Your task to perform on an android device: turn on translation in the chrome app Image 0: 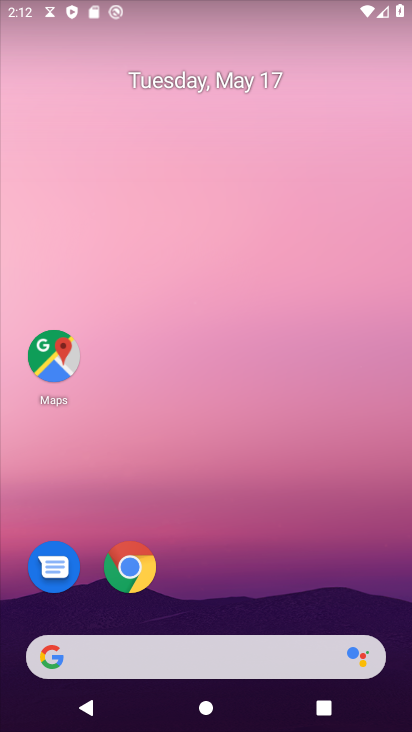
Step 0: click (142, 585)
Your task to perform on an android device: turn on translation in the chrome app Image 1: 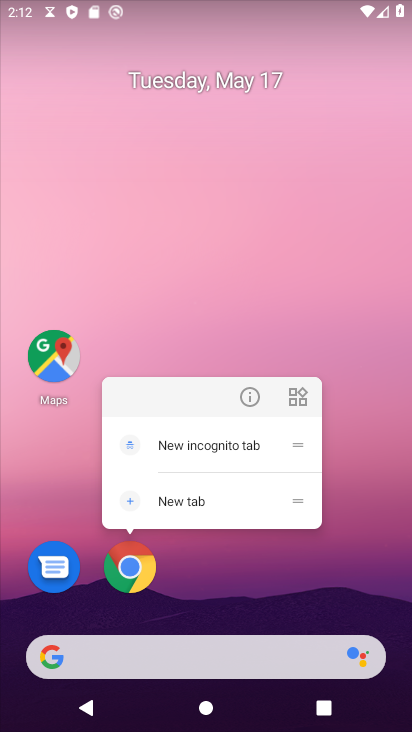
Step 1: click (138, 583)
Your task to perform on an android device: turn on translation in the chrome app Image 2: 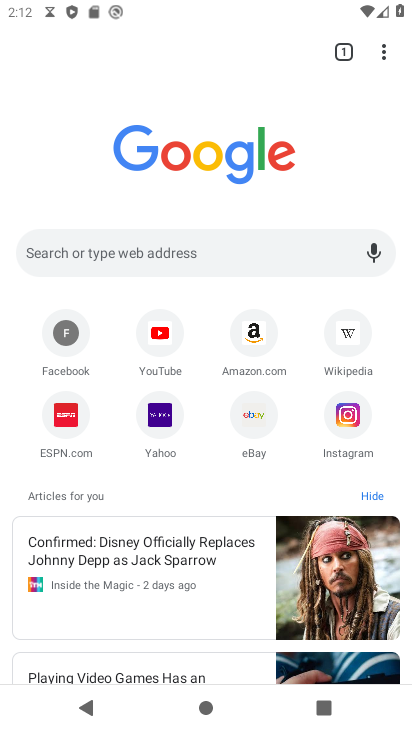
Step 2: drag from (379, 58) to (208, 446)
Your task to perform on an android device: turn on translation in the chrome app Image 3: 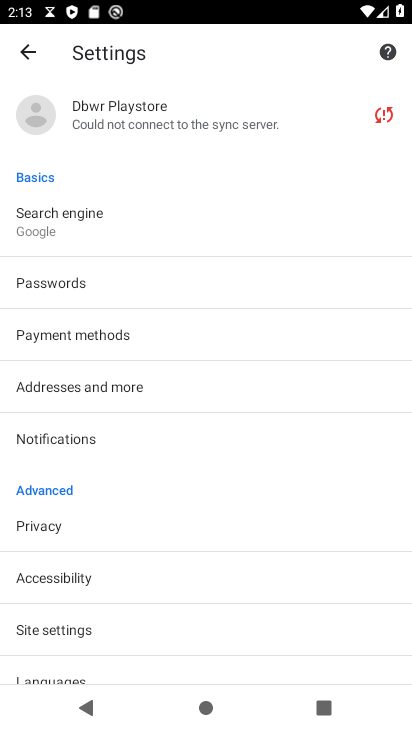
Step 3: drag from (95, 587) to (128, 223)
Your task to perform on an android device: turn on translation in the chrome app Image 4: 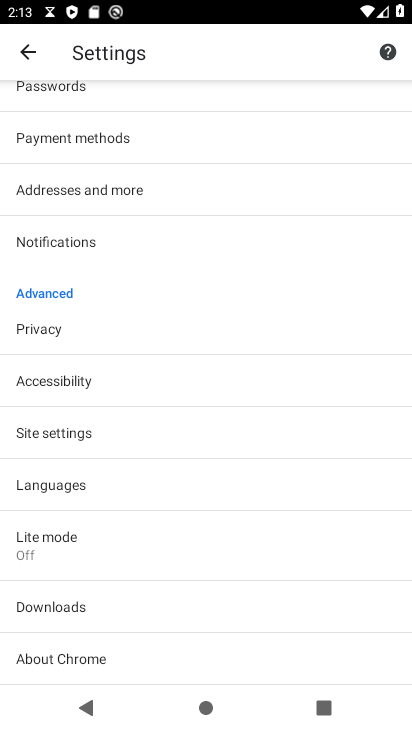
Step 4: click (80, 492)
Your task to perform on an android device: turn on translation in the chrome app Image 5: 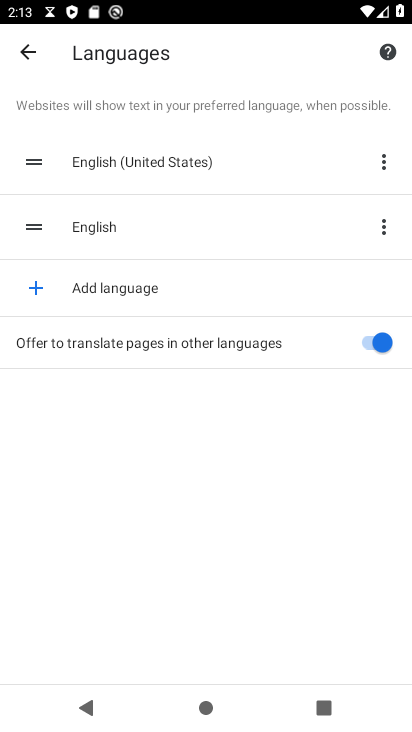
Step 5: task complete